Your task to perform on an android device: Find coffee shops on Maps Image 0: 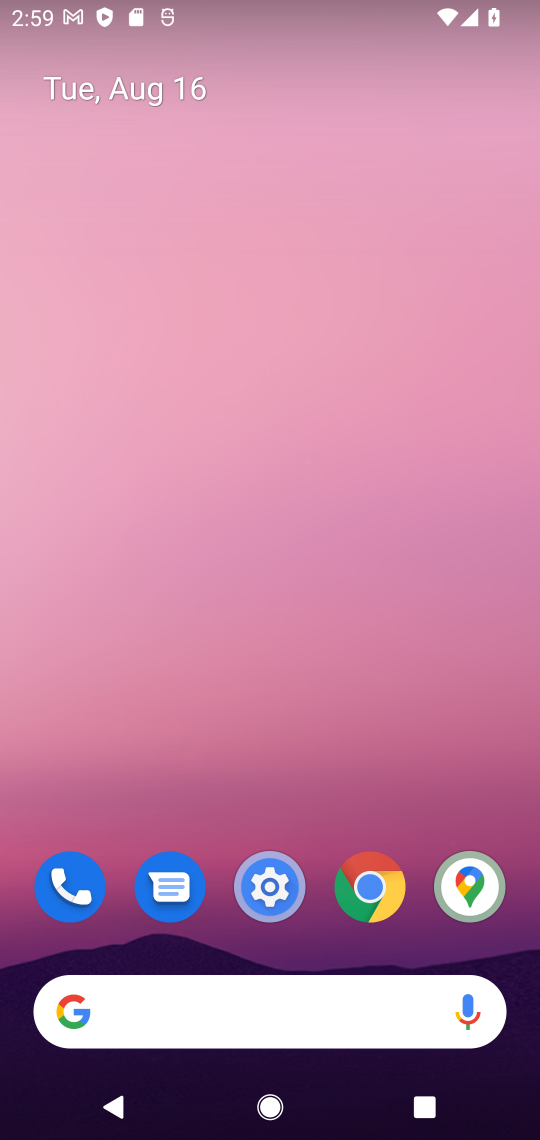
Step 0: drag from (302, 635) to (153, 9)
Your task to perform on an android device: Find coffee shops on Maps Image 1: 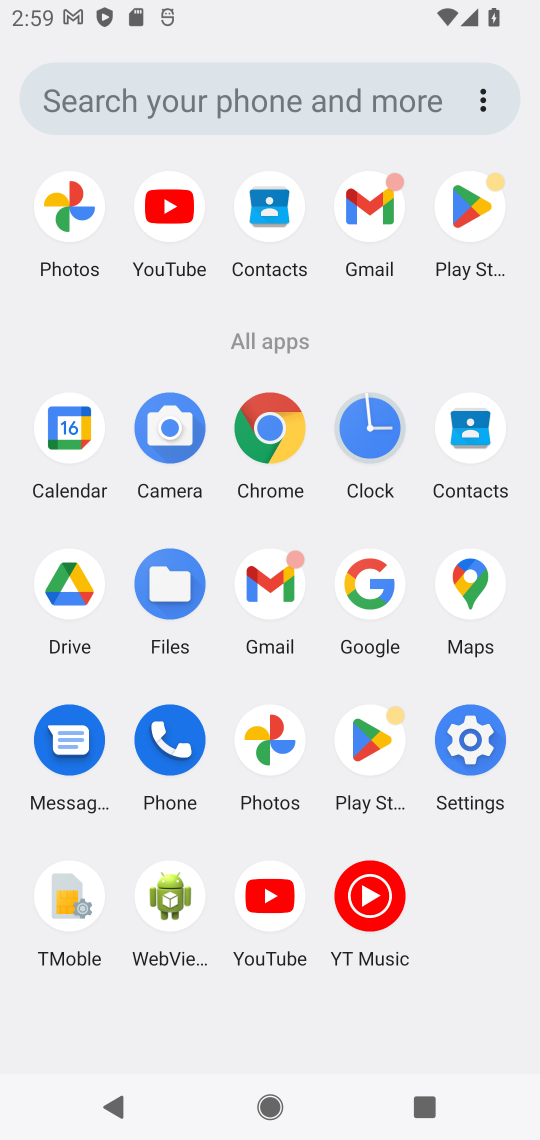
Step 1: click (476, 577)
Your task to perform on an android device: Find coffee shops on Maps Image 2: 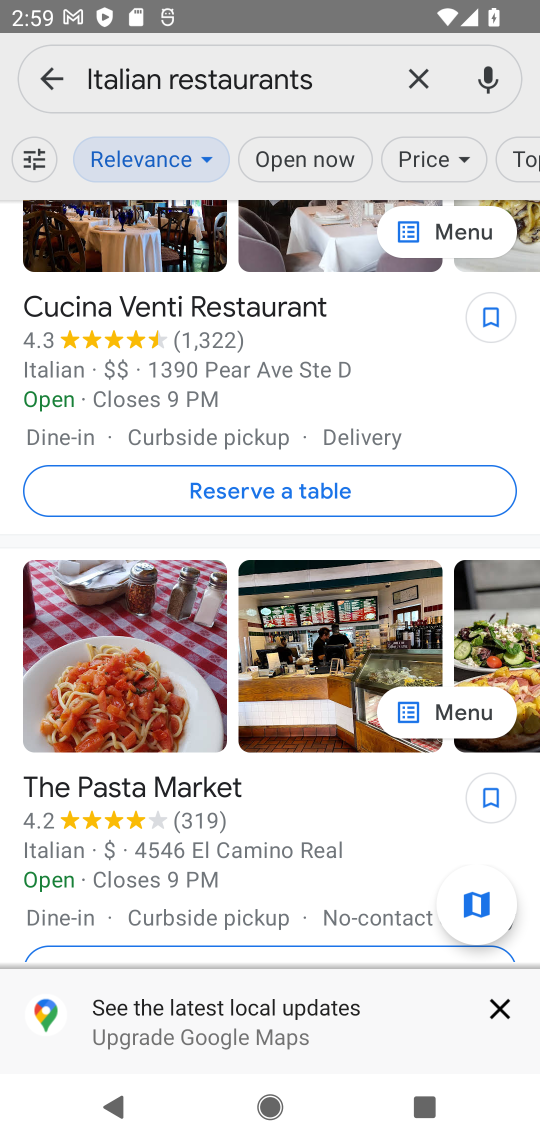
Step 2: click (424, 66)
Your task to perform on an android device: Find coffee shops on Maps Image 3: 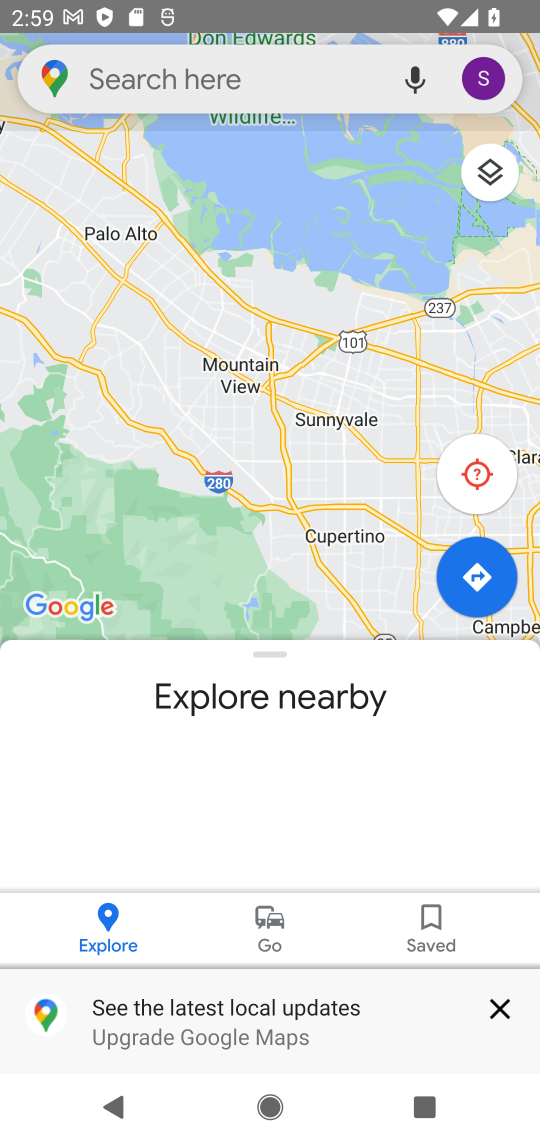
Step 3: click (285, 62)
Your task to perform on an android device: Find coffee shops on Maps Image 4: 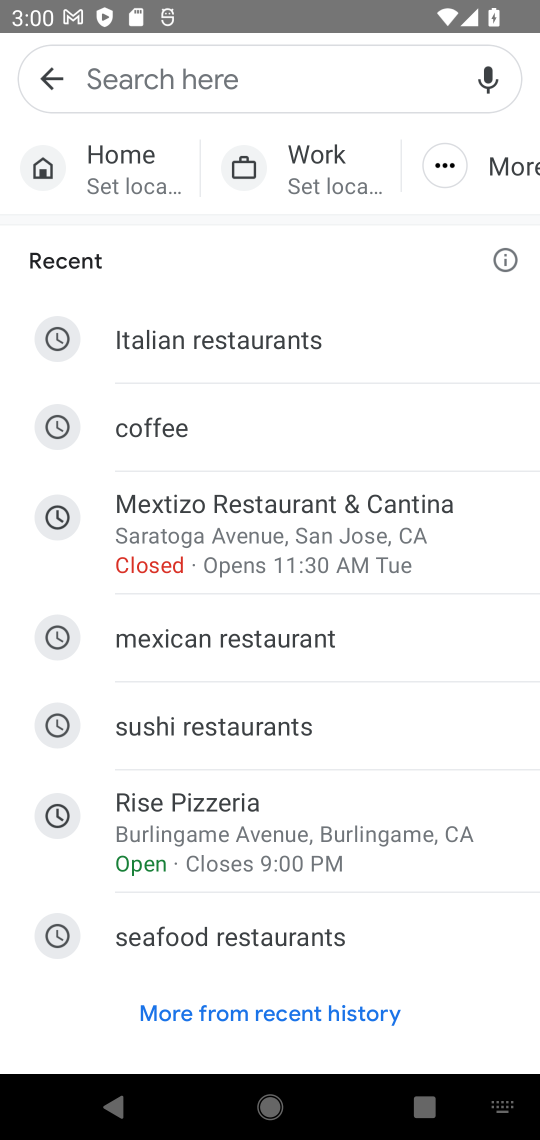
Step 4: type "coffee shops"
Your task to perform on an android device: Find coffee shops on Maps Image 5: 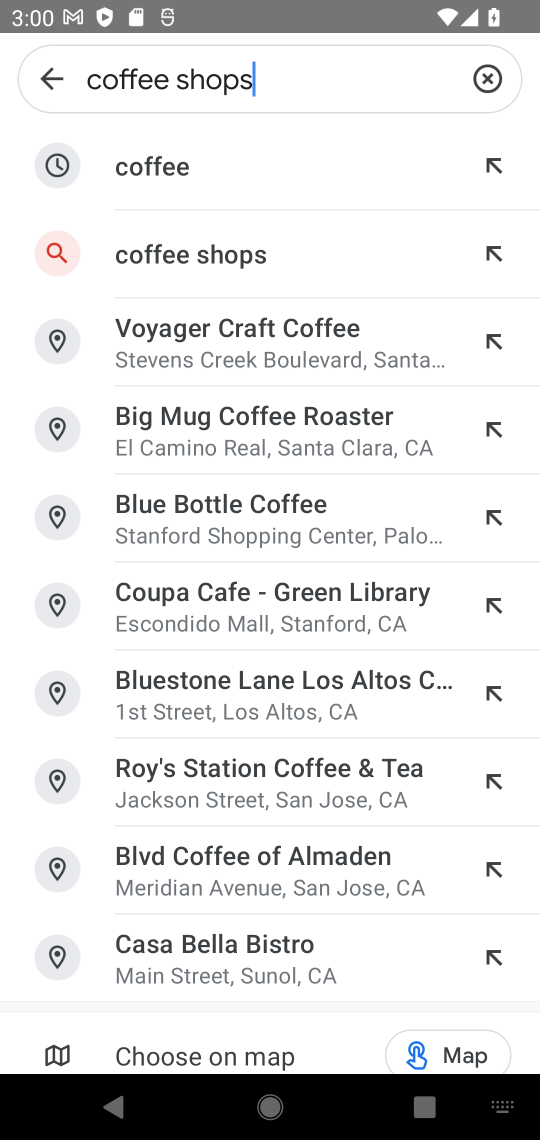
Step 5: press enter
Your task to perform on an android device: Find coffee shops on Maps Image 6: 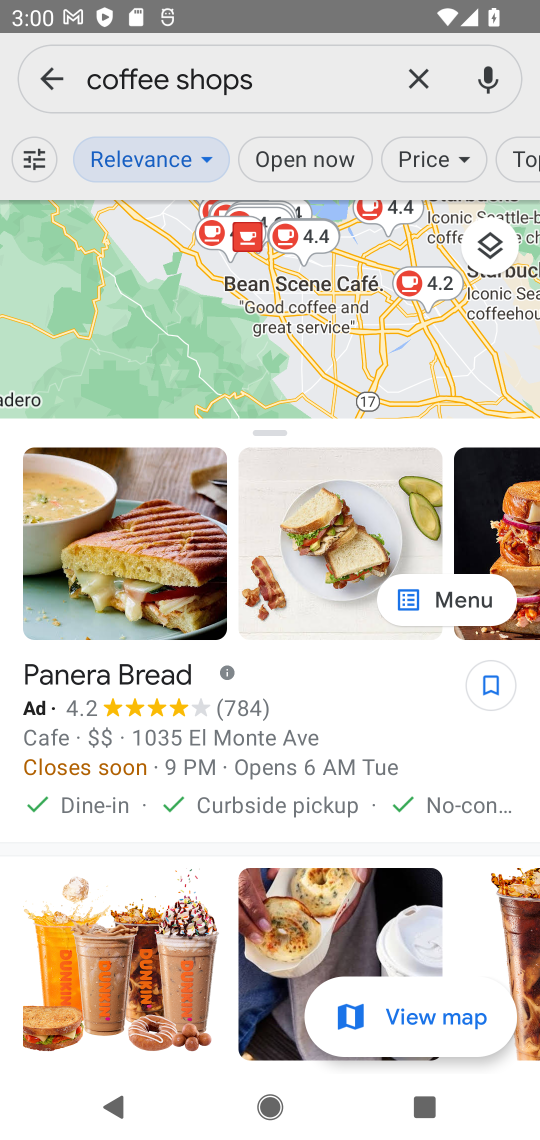
Step 6: task complete